Your task to perform on an android device: Show me recent news Image 0: 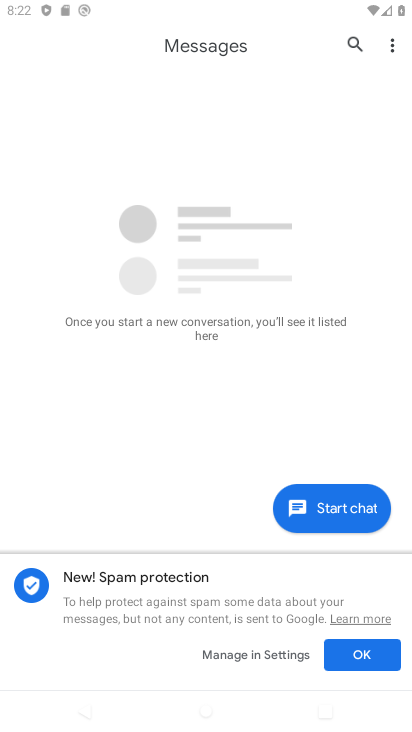
Step 0: press home button
Your task to perform on an android device: Show me recent news Image 1: 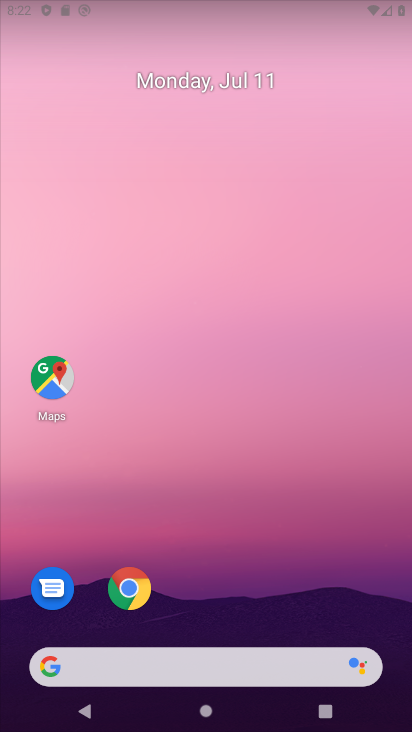
Step 1: click (187, 670)
Your task to perform on an android device: Show me recent news Image 2: 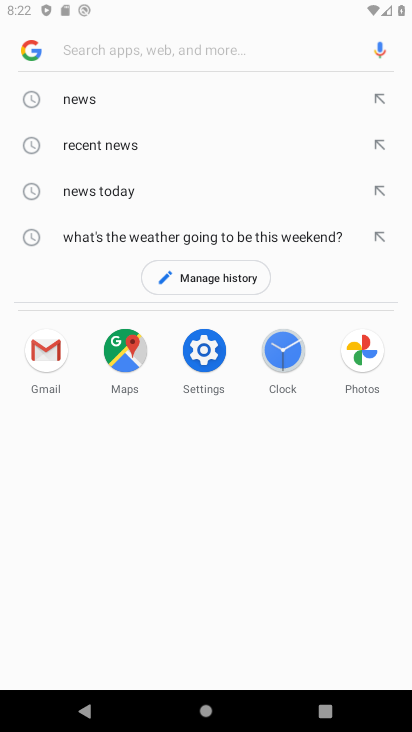
Step 2: click (131, 144)
Your task to perform on an android device: Show me recent news Image 3: 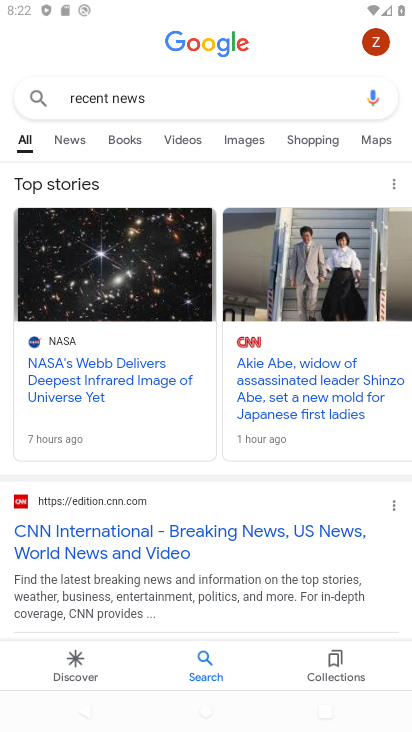
Step 3: task complete